Your task to perform on an android device: What's the weather today? Image 0: 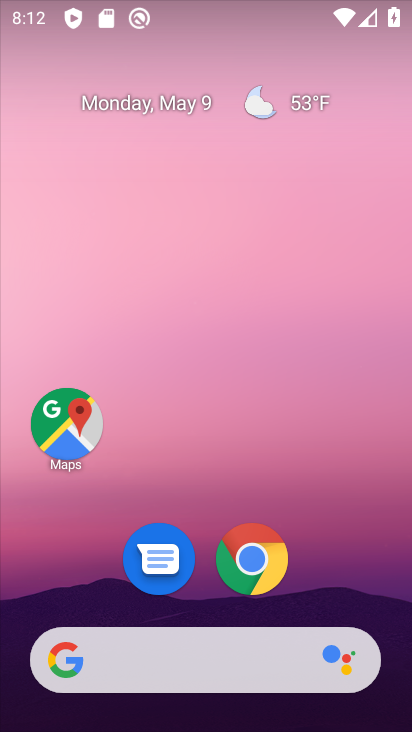
Step 0: click (104, 7)
Your task to perform on an android device: What's the weather today? Image 1: 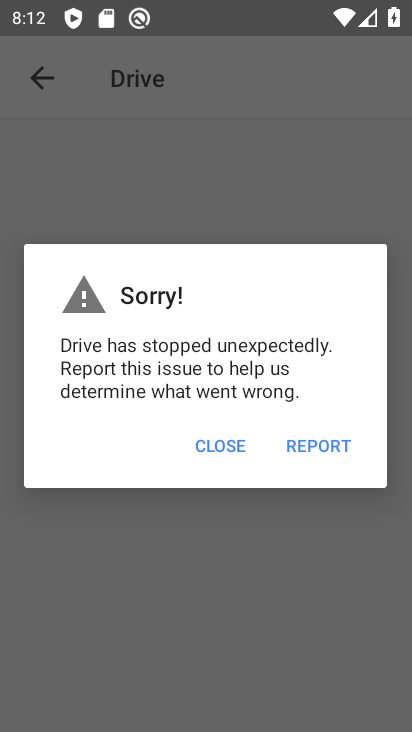
Step 1: click (227, 450)
Your task to perform on an android device: What's the weather today? Image 2: 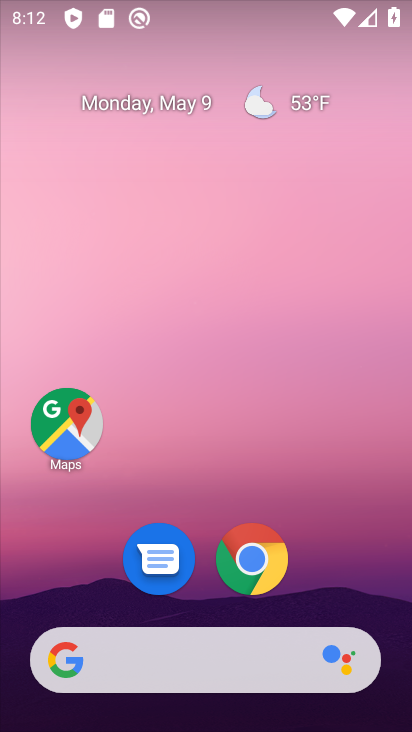
Step 2: click (268, 101)
Your task to perform on an android device: What's the weather today? Image 3: 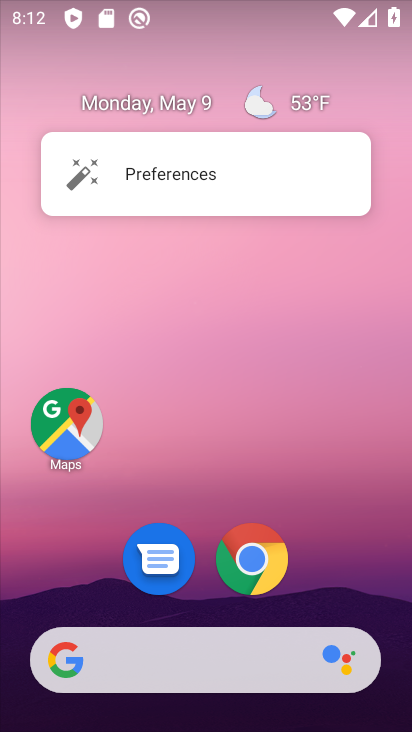
Step 3: click (266, 101)
Your task to perform on an android device: What's the weather today? Image 4: 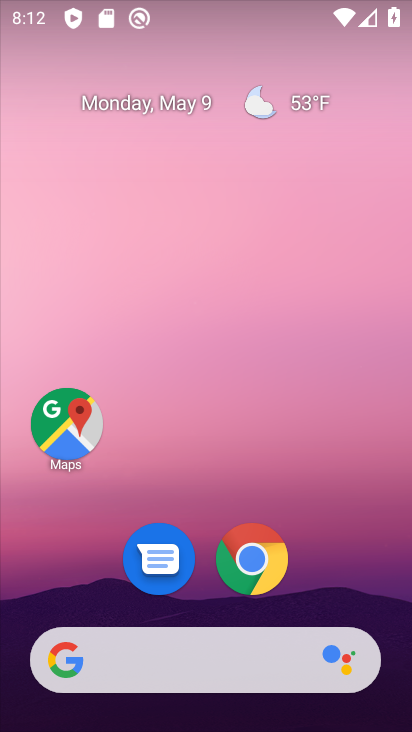
Step 4: click (260, 101)
Your task to perform on an android device: What's the weather today? Image 5: 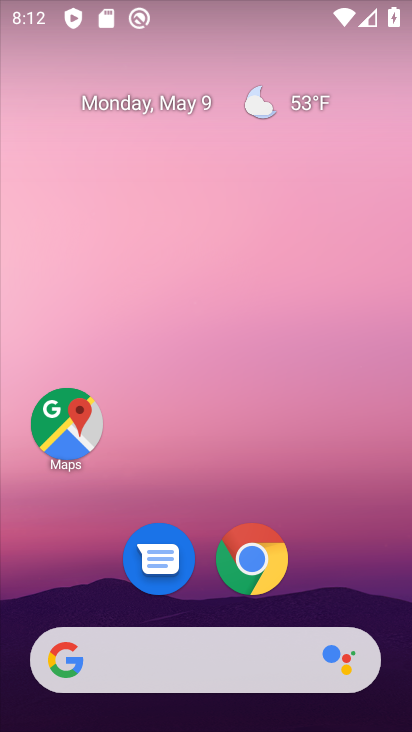
Step 5: click (260, 103)
Your task to perform on an android device: What's the weather today? Image 6: 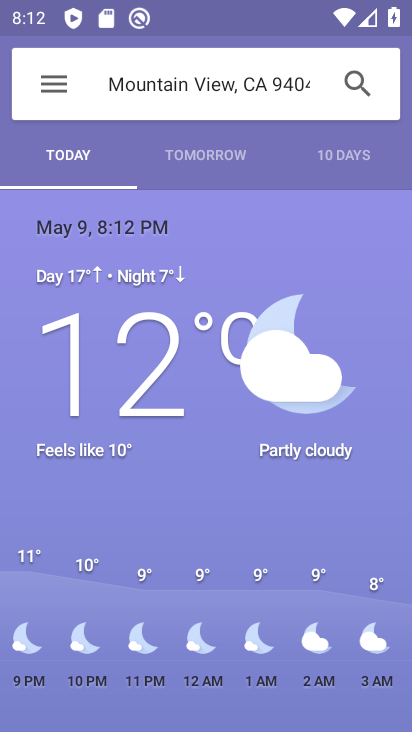
Step 6: task complete